Your task to perform on an android device: set an alarm Image 0: 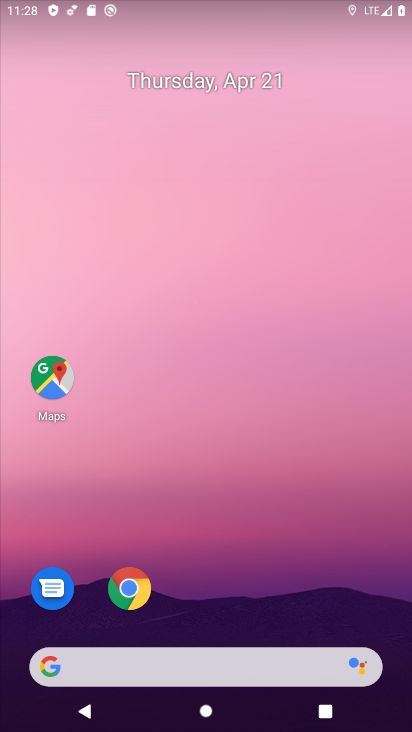
Step 0: drag from (259, 696) to (192, 137)
Your task to perform on an android device: set an alarm Image 1: 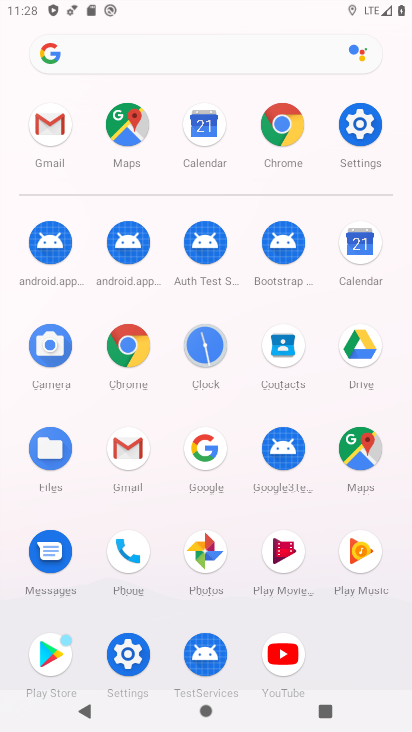
Step 1: click (201, 338)
Your task to perform on an android device: set an alarm Image 2: 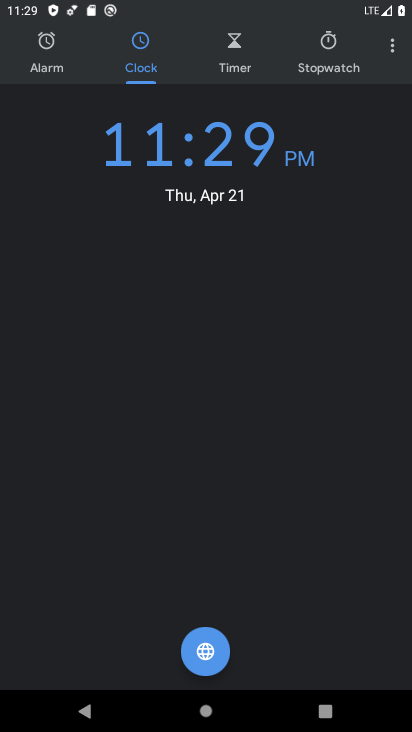
Step 2: click (66, 55)
Your task to perform on an android device: set an alarm Image 3: 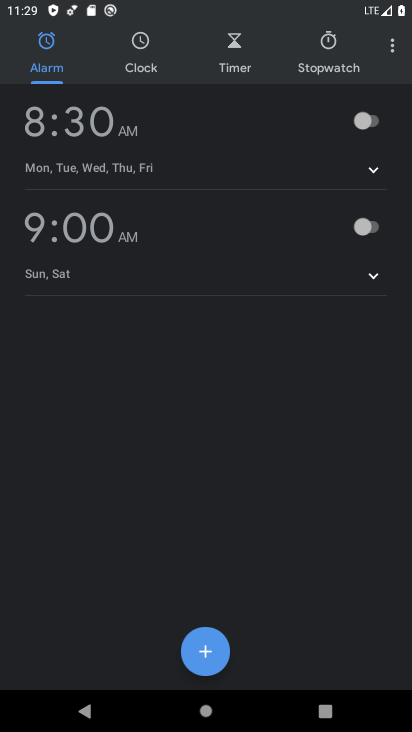
Step 3: click (354, 132)
Your task to perform on an android device: set an alarm Image 4: 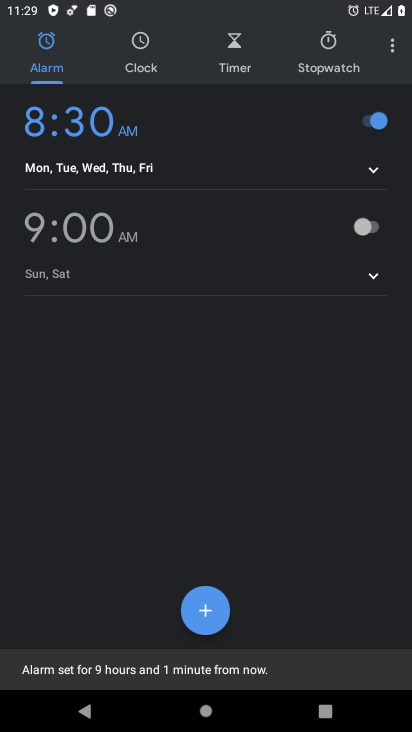
Step 4: task complete